Your task to perform on an android device: add a contact Image 0: 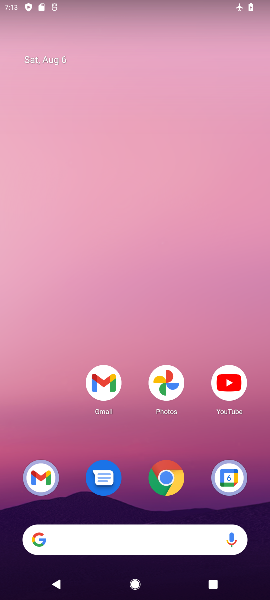
Step 0: press home button
Your task to perform on an android device: add a contact Image 1: 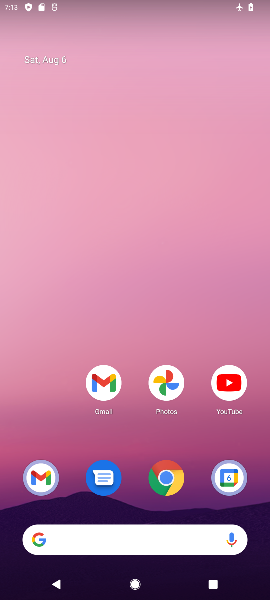
Step 1: drag from (46, 389) to (72, 63)
Your task to perform on an android device: add a contact Image 2: 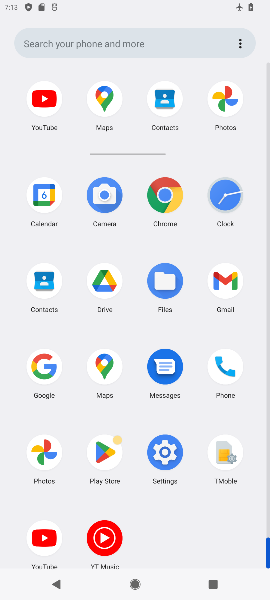
Step 2: click (37, 268)
Your task to perform on an android device: add a contact Image 3: 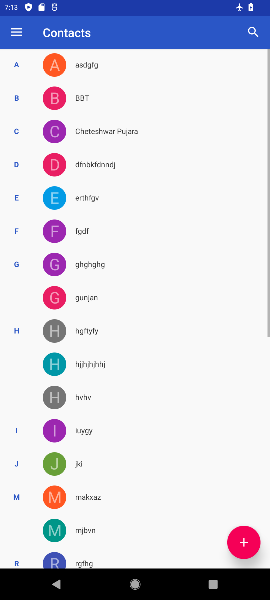
Step 3: click (248, 541)
Your task to perform on an android device: add a contact Image 4: 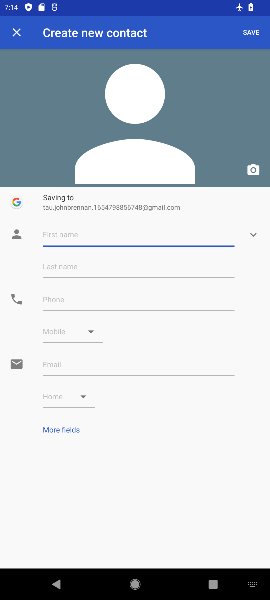
Step 4: type "feffrfrrferfrfr"
Your task to perform on an android device: add a contact Image 5: 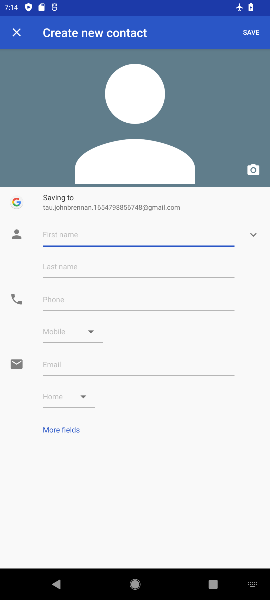
Step 5: click (57, 232)
Your task to perform on an android device: add a contact Image 6: 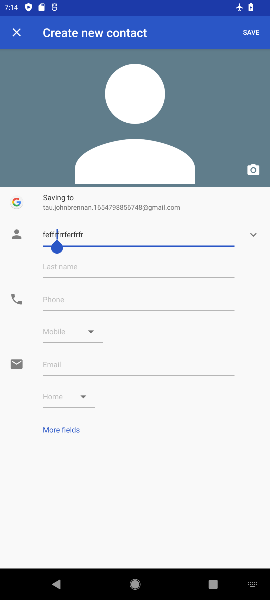
Step 6: click (83, 296)
Your task to perform on an android device: add a contact Image 7: 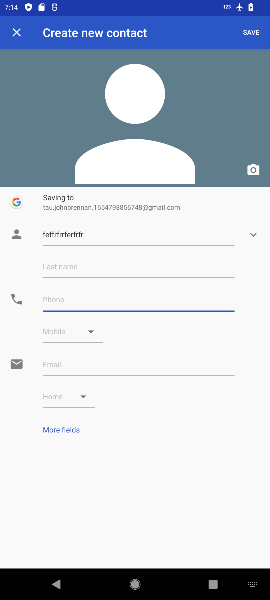
Step 7: type "442221`32444"
Your task to perform on an android device: add a contact Image 8: 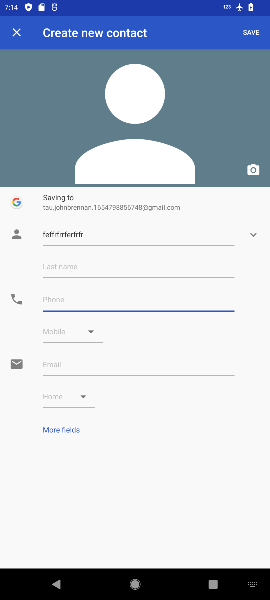
Step 8: click (163, 300)
Your task to perform on an android device: add a contact Image 9: 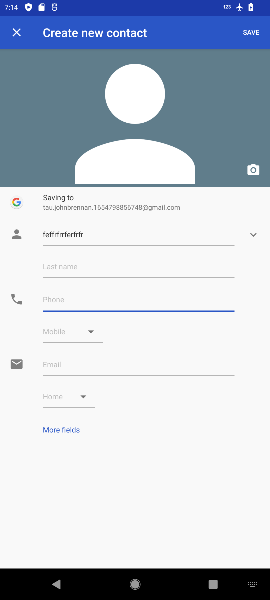
Step 9: click (57, 303)
Your task to perform on an android device: add a contact Image 10: 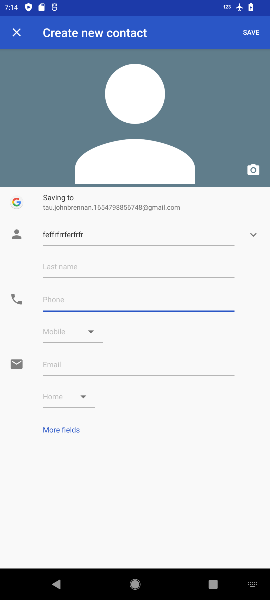
Step 10: type "44134141442"
Your task to perform on an android device: add a contact Image 11: 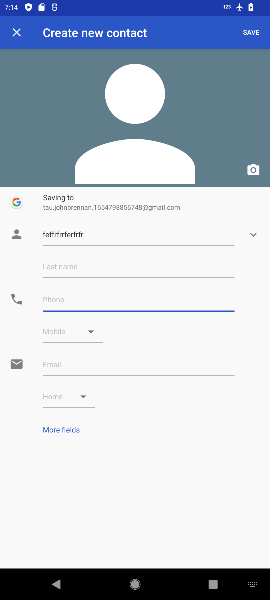
Step 11: click (84, 300)
Your task to perform on an android device: add a contact Image 12: 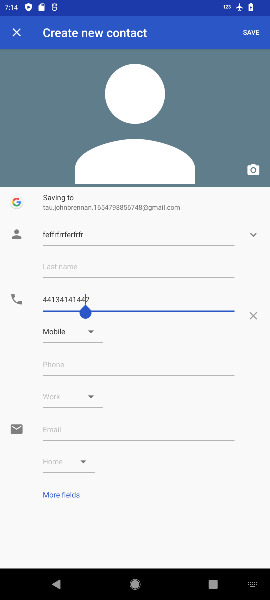
Step 12: click (252, 34)
Your task to perform on an android device: add a contact Image 13: 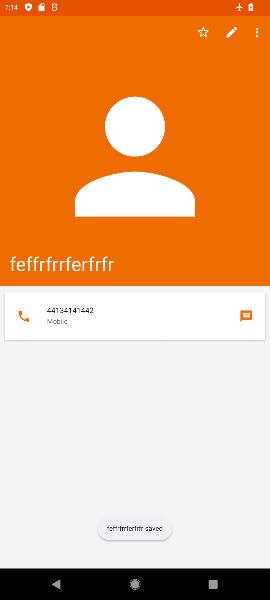
Step 13: task complete